Your task to perform on an android device: Go to battery settings Image 0: 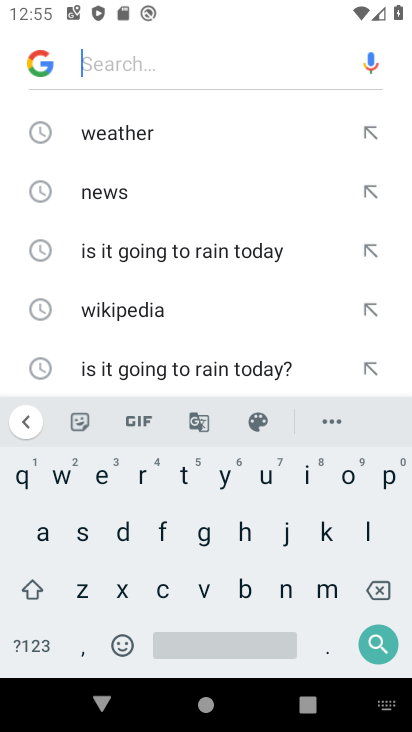
Step 0: press home button
Your task to perform on an android device: Go to battery settings Image 1: 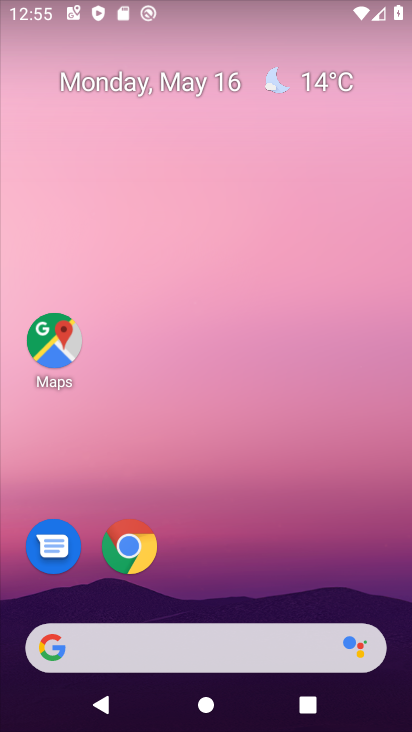
Step 1: drag from (271, 681) to (154, 328)
Your task to perform on an android device: Go to battery settings Image 2: 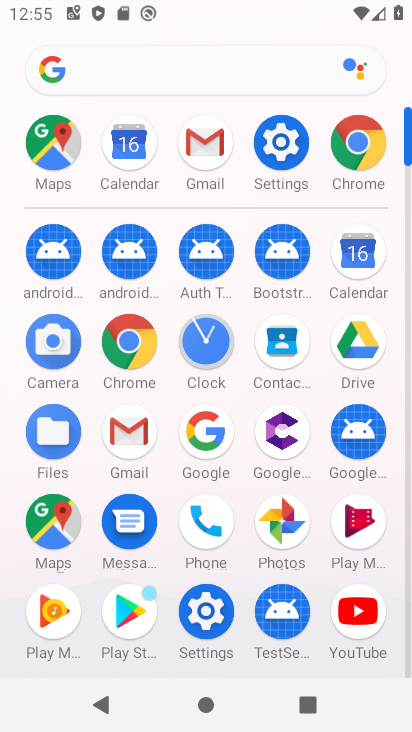
Step 2: click (249, 159)
Your task to perform on an android device: Go to battery settings Image 3: 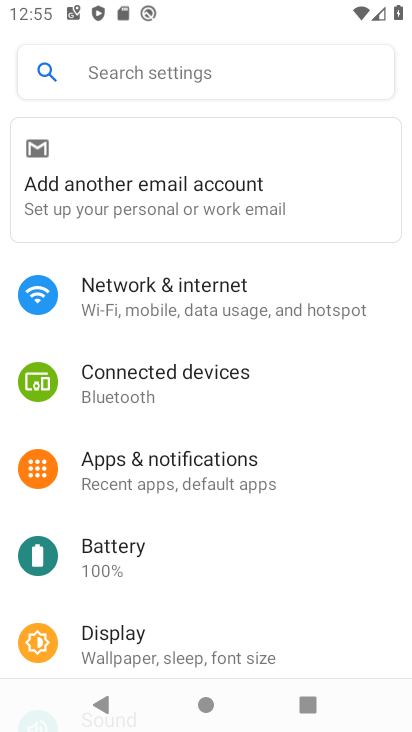
Step 3: click (137, 528)
Your task to perform on an android device: Go to battery settings Image 4: 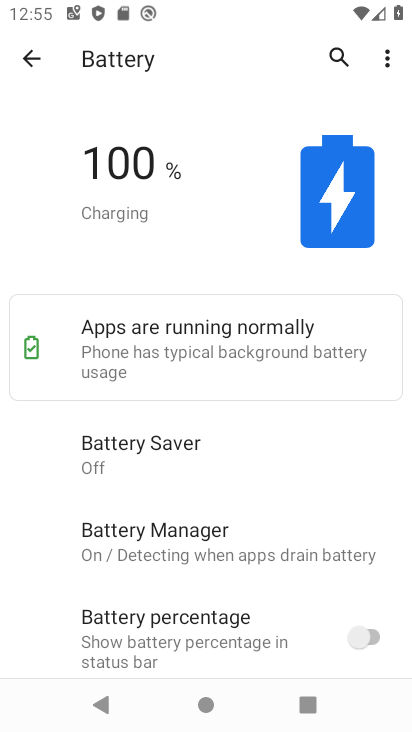
Step 4: task complete